Your task to perform on an android device: Go to Reddit.com Image 0: 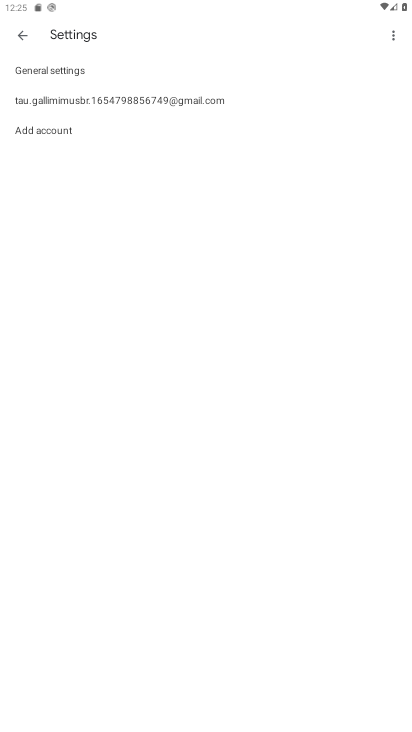
Step 0: press home button
Your task to perform on an android device: Go to Reddit.com Image 1: 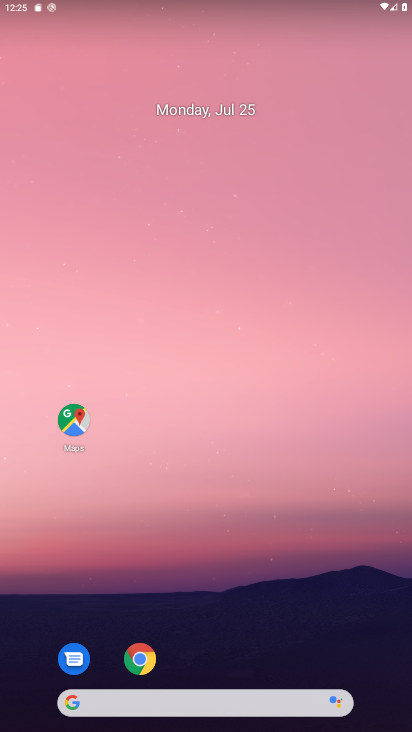
Step 1: click (137, 651)
Your task to perform on an android device: Go to Reddit.com Image 2: 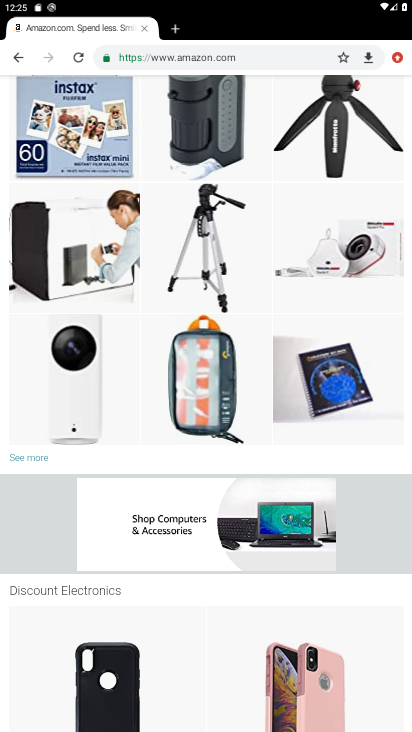
Step 2: click (137, 655)
Your task to perform on an android device: Go to Reddit.com Image 3: 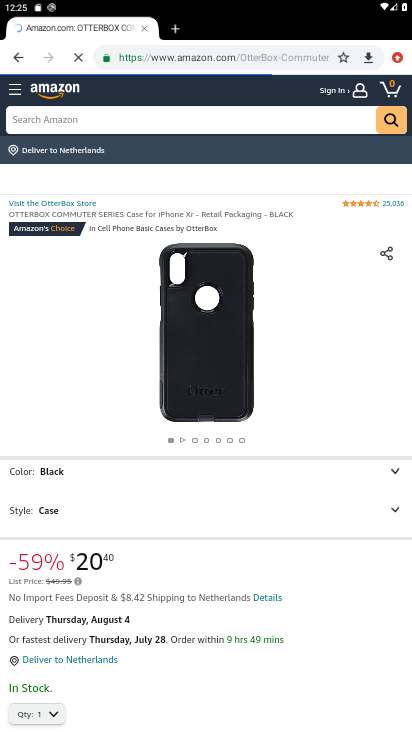
Step 3: click (179, 26)
Your task to perform on an android device: Go to Reddit.com Image 4: 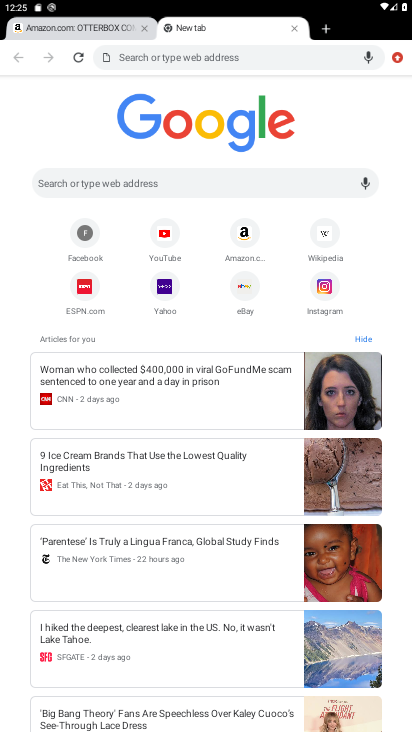
Step 4: click (118, 178)
Your task to perform on an android device: Go to Reddit.com Image 5: 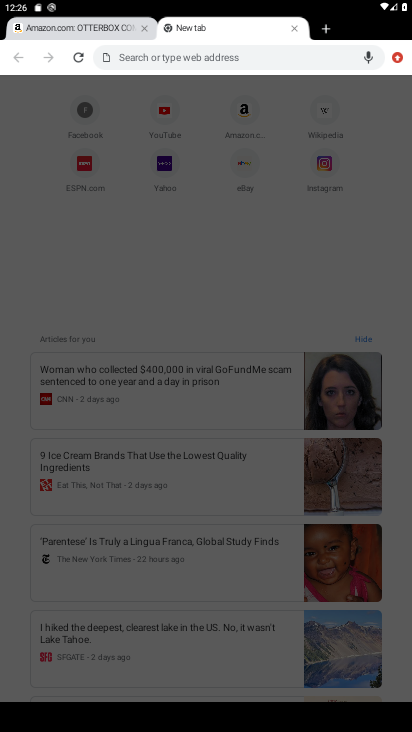
Step 5: type "reddit.com"
Your task to perform on an android device: Go to Reddit.com Image 6: 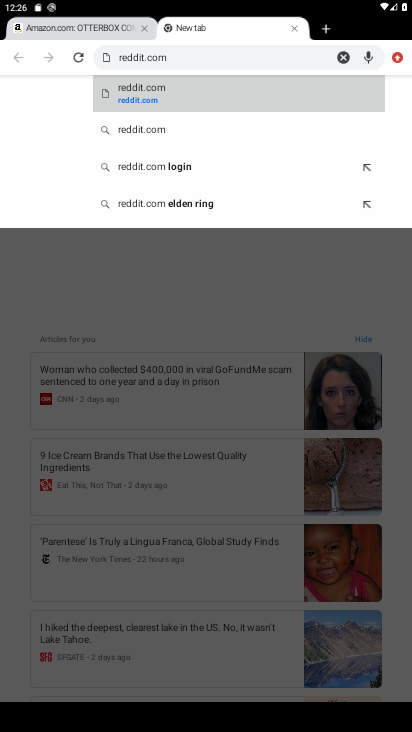
Step 6: click (160, 90)
Your task to perform on an android device: Go to Reddit.com Image 7: 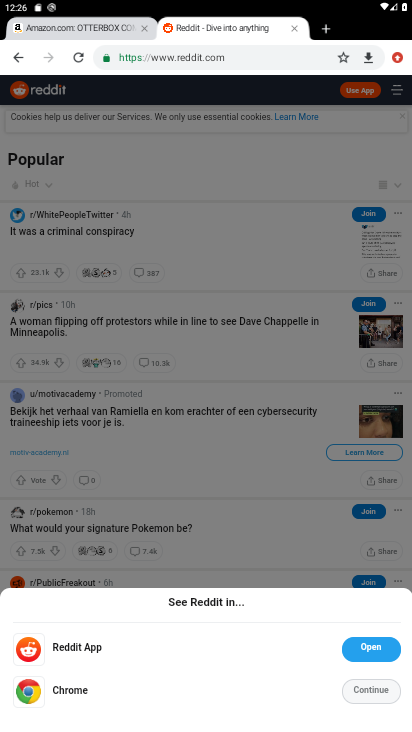
Step 7: click (370, 690)
Your task to perform on an android device: Go to Reddit.com Image 8: 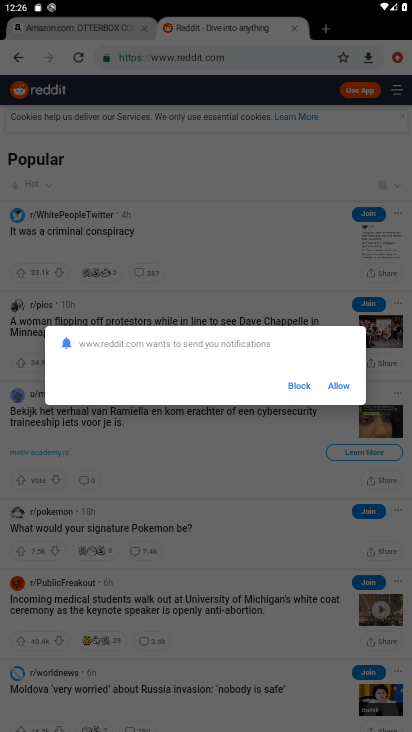
Step 8: click (341, 379)
Your task to perform on an android device: Go to Reddit.com Image 9: 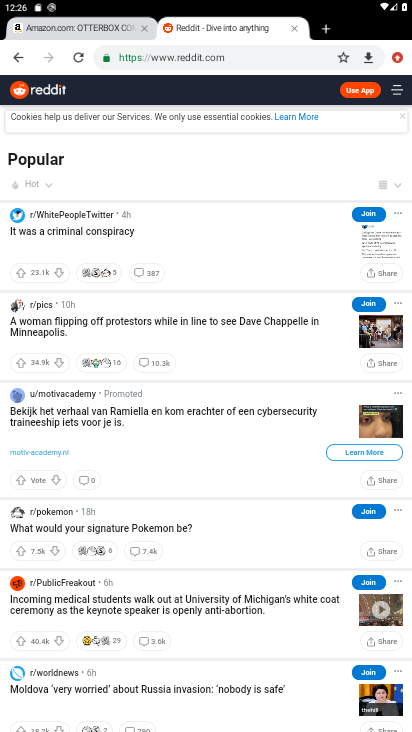
Step 9: task complete